Your task to perform on an android device: What's the news in Jamaica? Image 0: 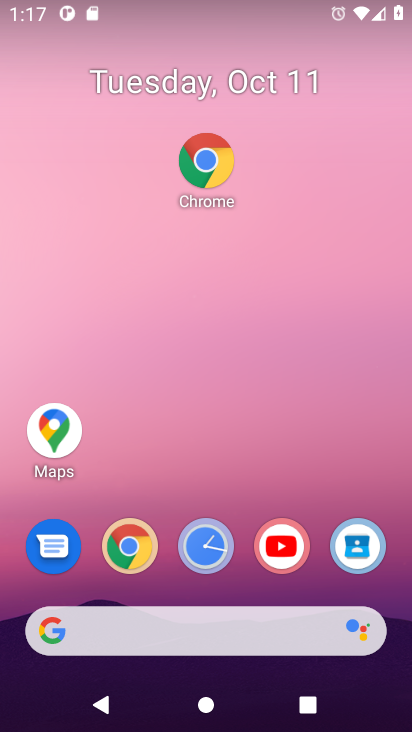
Step 0: click (129, 543)
Your task to perform on an android device: What's the news in Jamaica? Image 1: 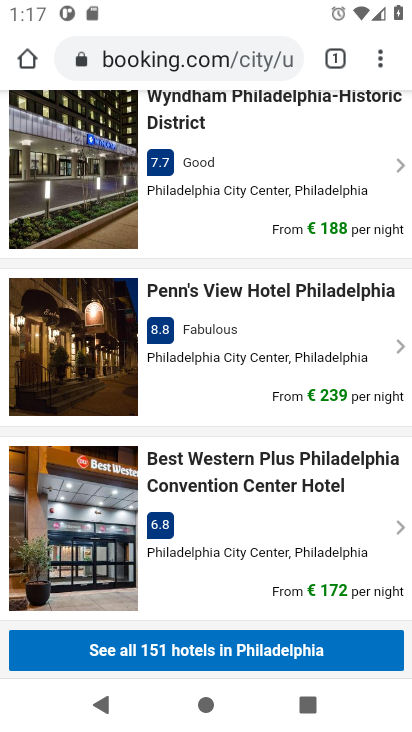
Step 1: click (222, 66)
Your task to perform on an android device: What's the news in Jamaica? Image 2: 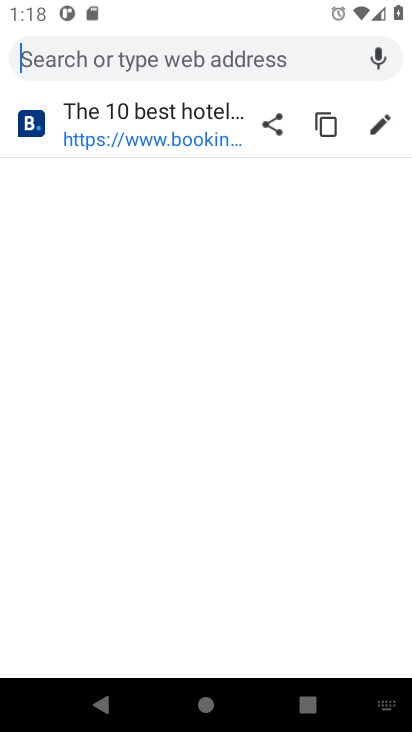
Step 2: type "news in Jamaica"
Your task to perform on an android device: What's the news in Jamaica? Image 3: 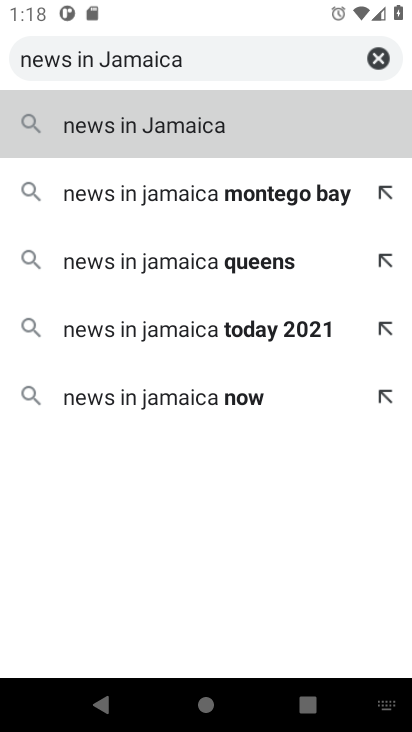
Step 3: press enter
Your task to perform on an android device: What's the news in Jamaica? Image 4: 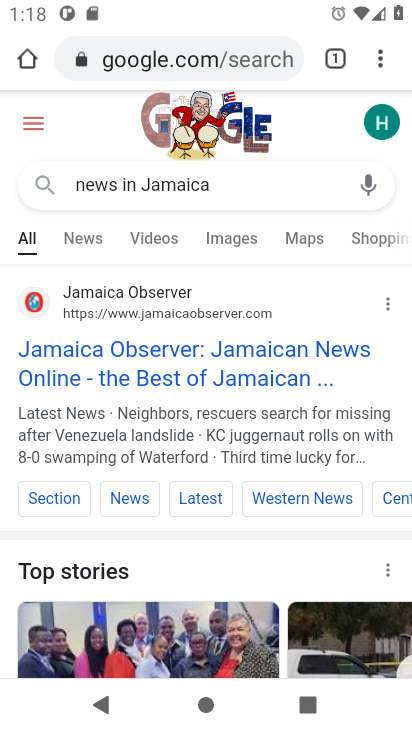
Step 4: click (79, 242)
Your task to perform on an android device: What's the news in Jamaica? Image 5: 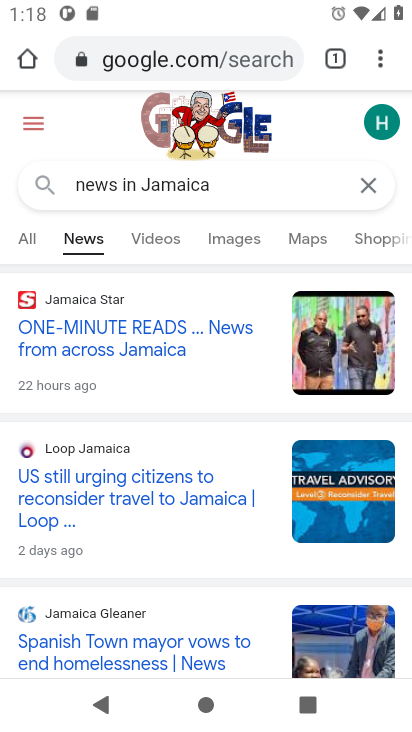
Step 5: drag from (159, 414) to (173, 251)
Your task to perform on an android device: What's the news in Jamaica? Image 6: 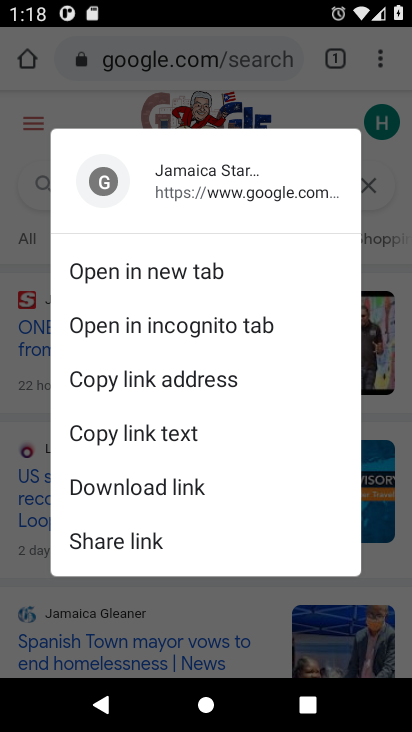
Step 6: click (363, 426)
Your task to perform on an android device: What's the news in Jamaica? Image 7: 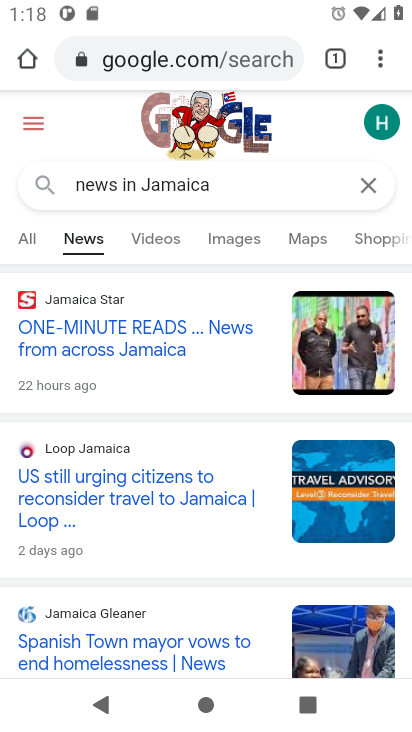
Step 7: task complete